Your task to perform on an android device: change keyboard looks Image 0: 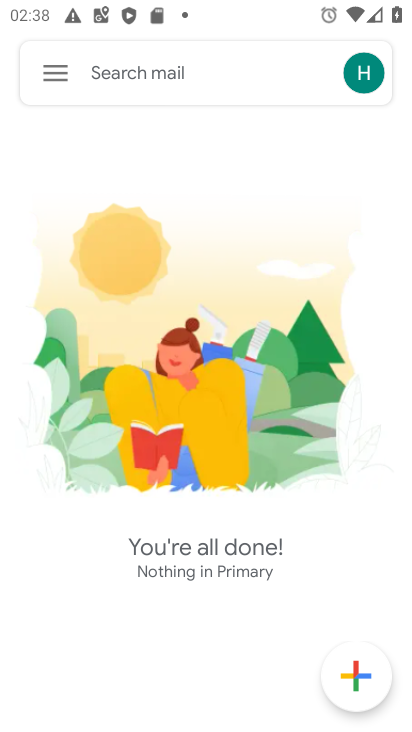
Step 0: press home button
Your task to perform on an android device: change keyboard looks Image 1: 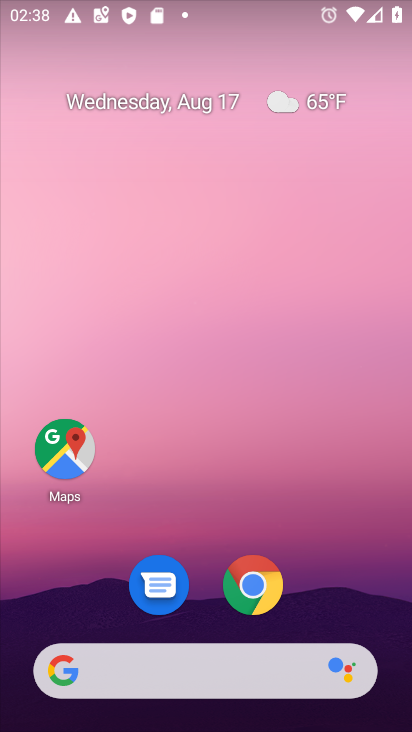
Step 1: drag from (317, 561) to (356, 16)
Your task to perform on an android device: change keyboard looks Image 2: 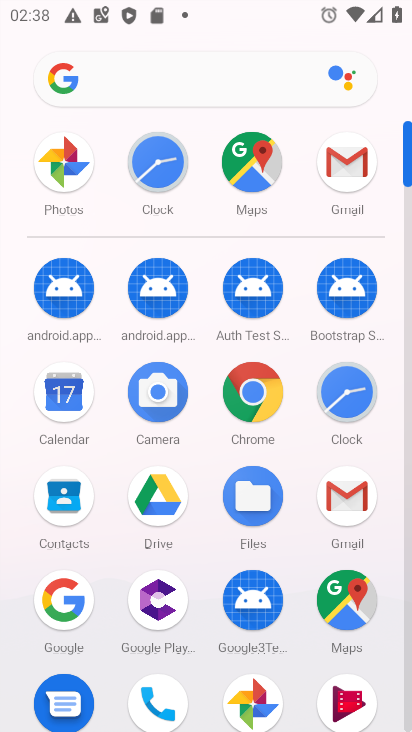
Step 2: drag from (201, 484) to (240, 41)
Your task to perform on an android device: change keyboard looks Image 3: 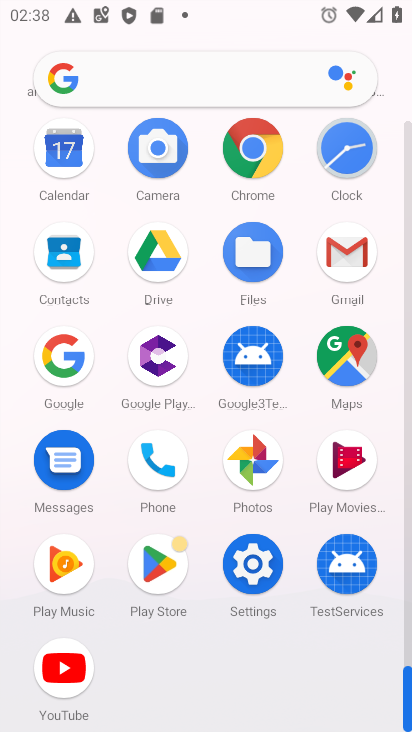
Step 3: click (249, 563)
Your task to perform on an android device: change keyboard looks Image 4: 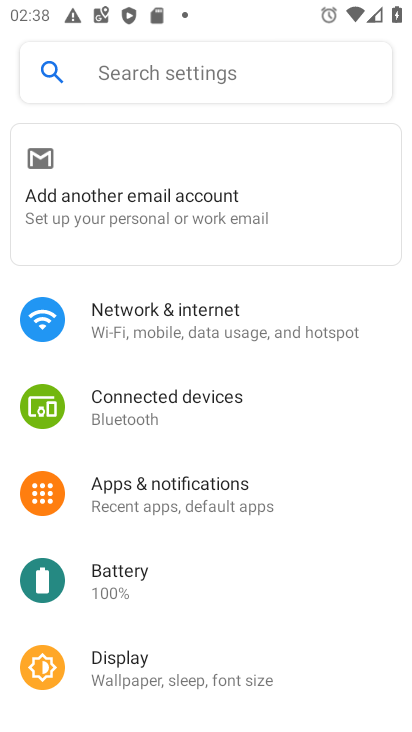
Step 4: drag from (217, 566) to (265, 0)
Your task to perform on an android device: change keyboard looks Image 5: 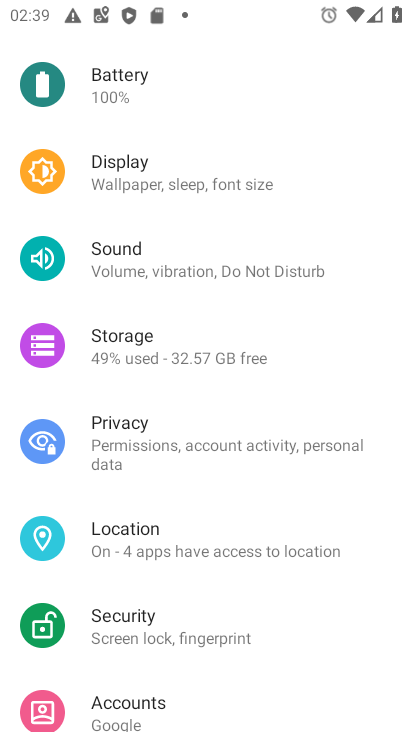
Step 5: drag from (220, 549) to (250, 80)
Your task to perform on an android device: change keyboard looks Image 6: 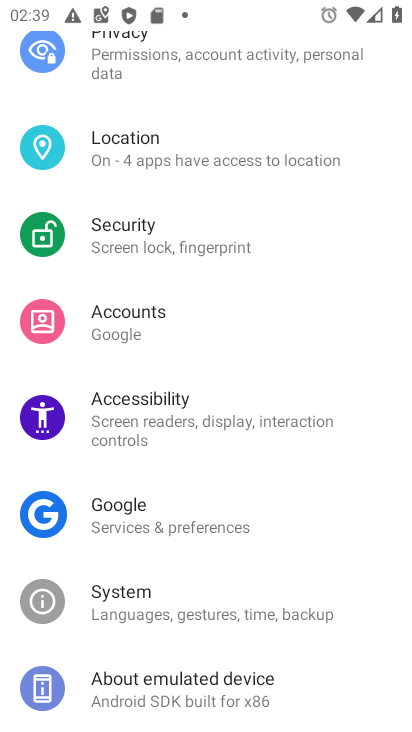
Step 6: click (209, 598)
Your task to perform on an android device: change keyboard looks Image 7: 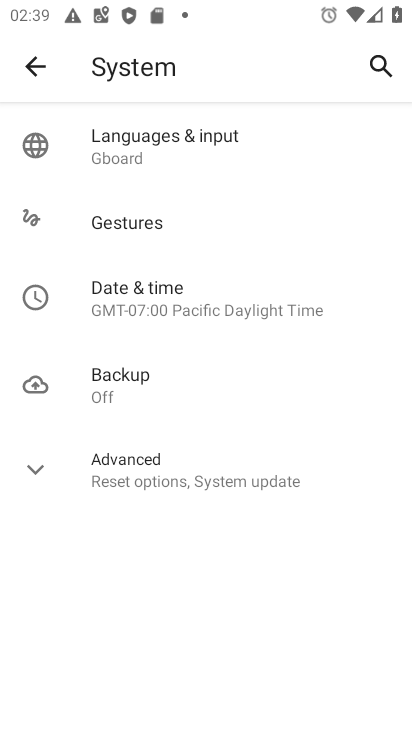
Step 7: click (191, 159)
Your task to perform on an android device: change keyboard looks Image 8: 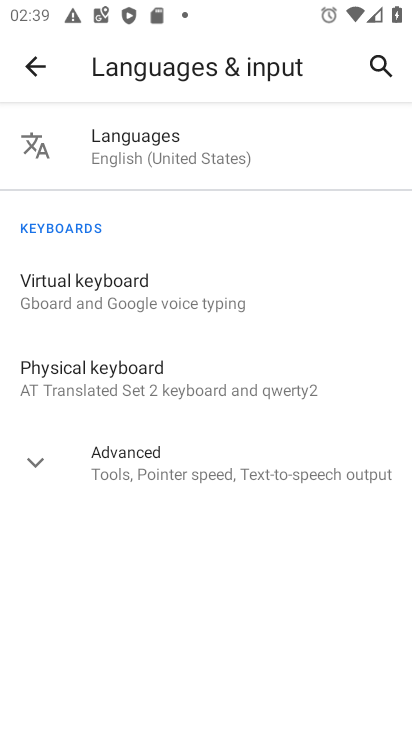
Step 8: click (137, 283)
Your task to perform on an android device: change keyboard looks Image 9: 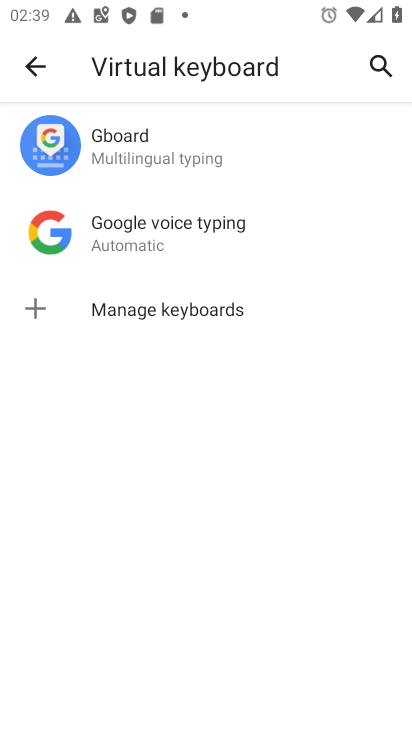
Step 9: click (145, 150)
Your task to perform on an android device: change keyboard looks Image 10: 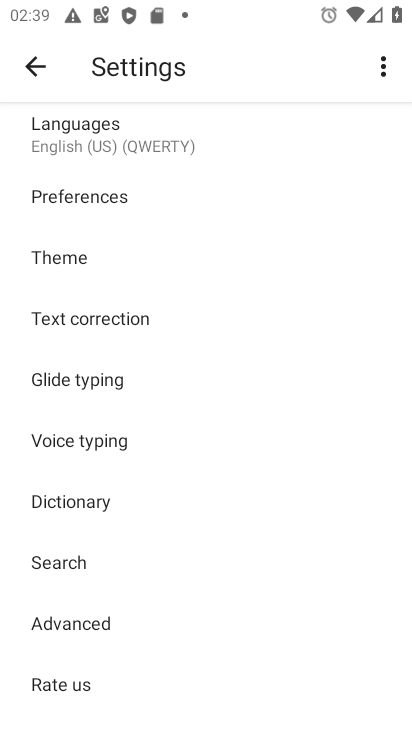
Step 10: click (64, 253)
Your task to perform on an android device: change keyboard looks Image 11: 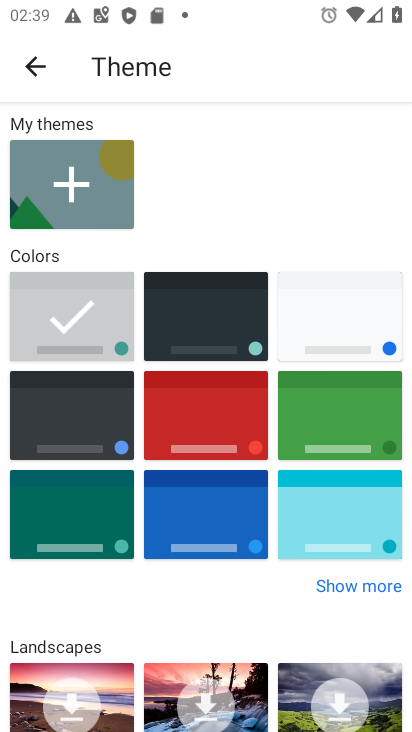
Step 11: click (338, 313)
Your task to perform on an android device: change keyboard looks Image 12: 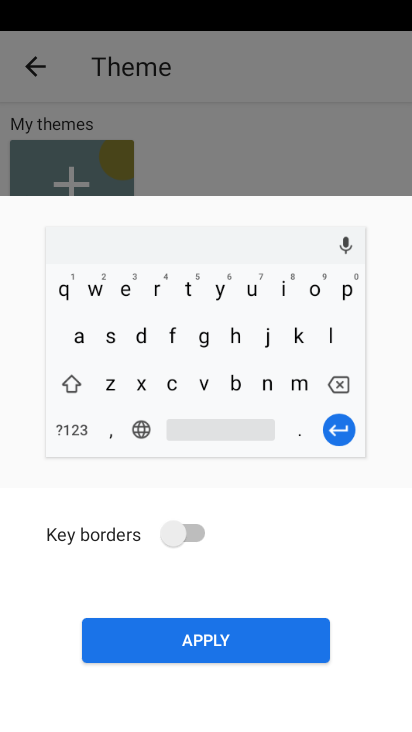
Step 12: click (189, 522)
Your task to perform on an android device: change keyboard looks Image 13: 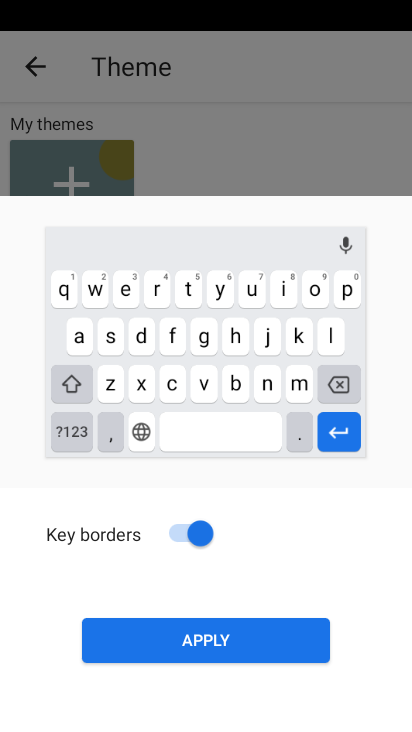
Step 13: click (227, 637)
Your task to perform on an android device: change keyboard looks Image 14: 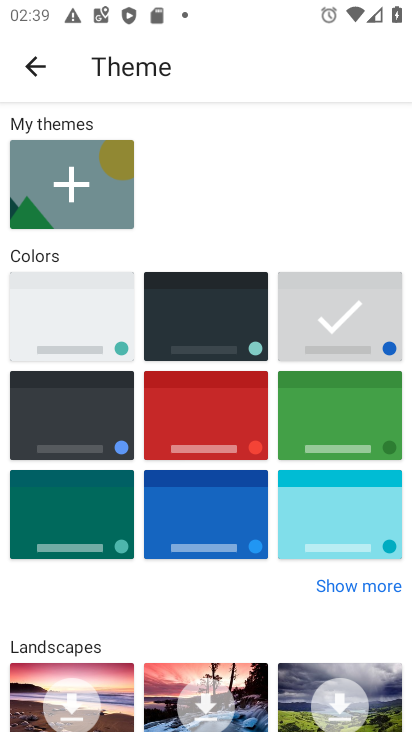
Step 14: task complete